Your task to perform on an android device: Find coffee shops on Maps Image 0: 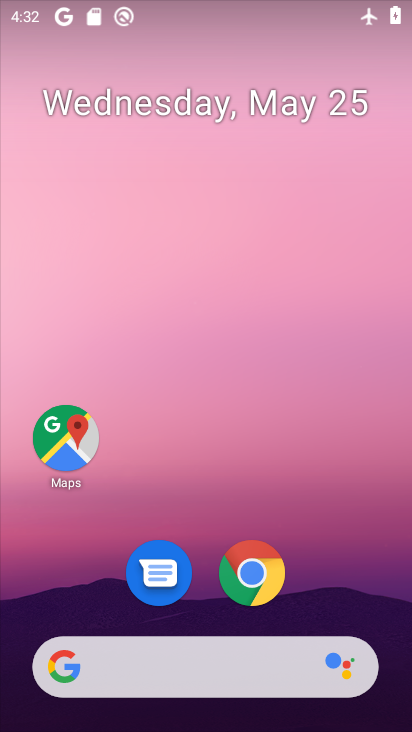
Step 0: drag from (216, 717) to (216, 6)
Your task to perform on an android device: Find coffee shops on Maps Image 1: 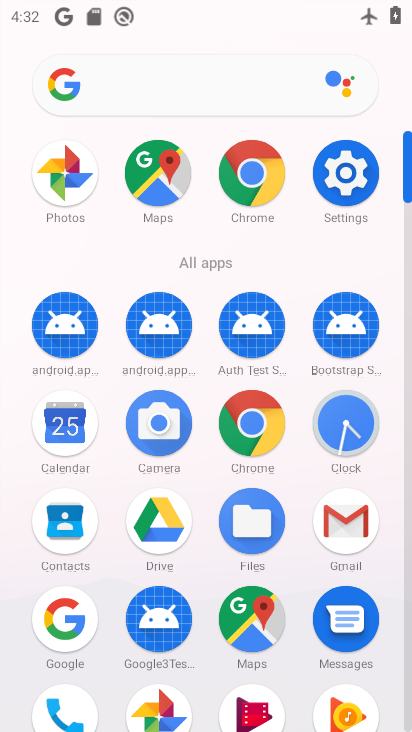
Step 1: click (250, 619)
Your task to perform on an android device: Find coffee shops on Maps Image 2: 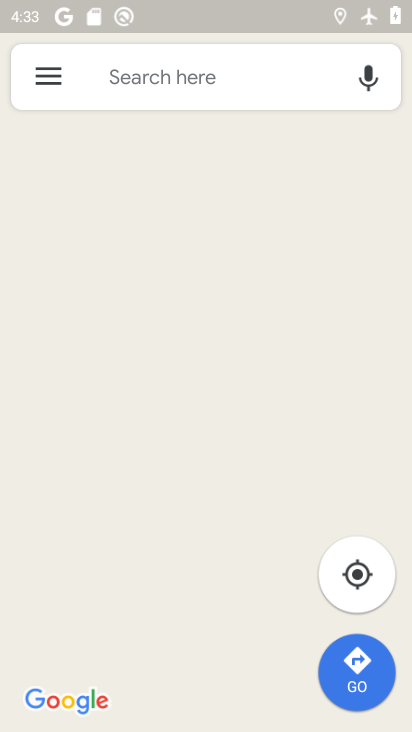
Step 2: click (171, 73)
Your task to perform on an android device: Find coffee shops on Maps Image 3: 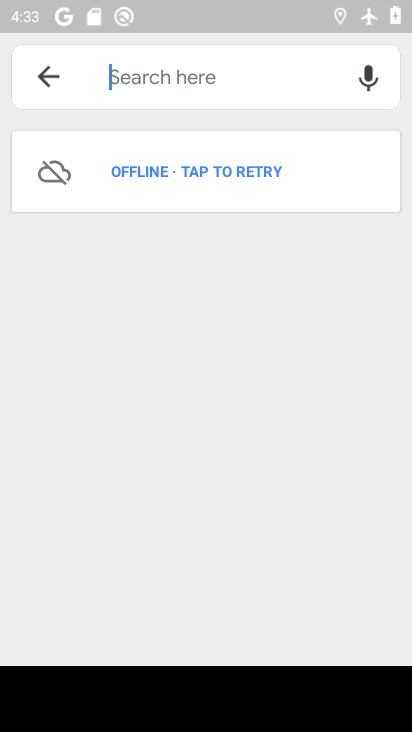
Step 3: type "coffee"
Your task to perform on an android device: Find coffee shops on Maps Image 4: 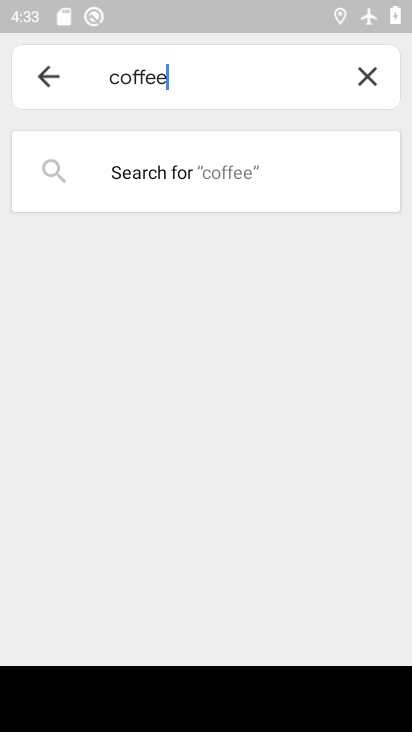
Step 4: click (177, 160)
Your task to perform on an android device: Find coffee shops on Maps Image 5: 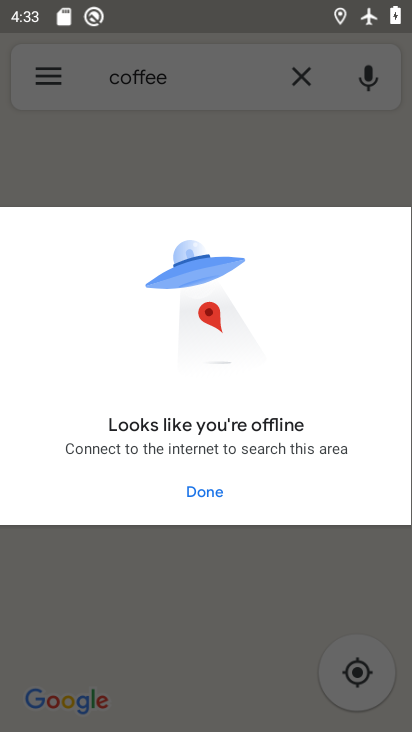
Step 5: task complete